Your task to perform on an android device: What's the latest tech news? Image 0: 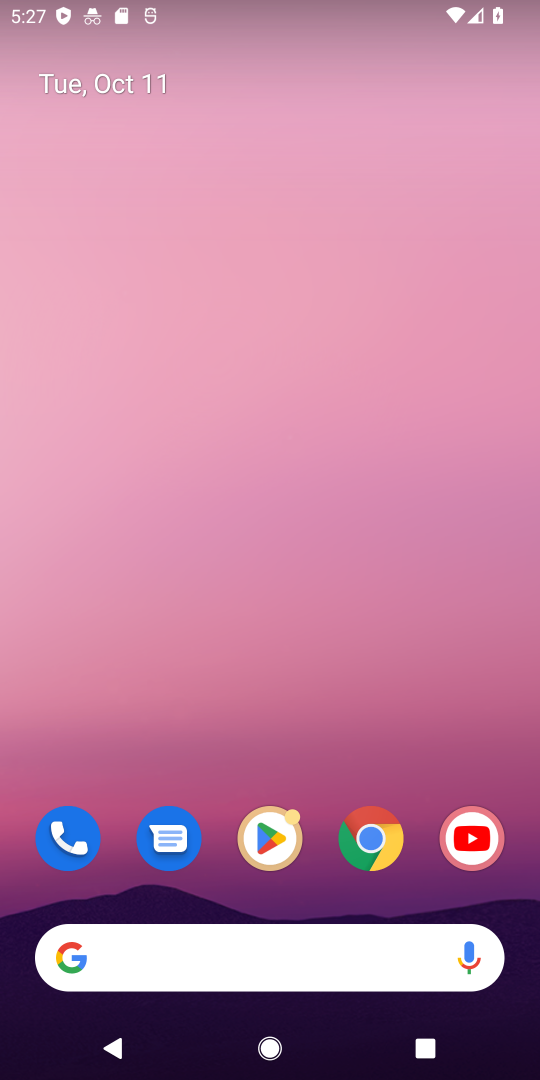
Step 0: click (372, 835)
Your task to perform on an android device: What's the latest tech news? Image 1: 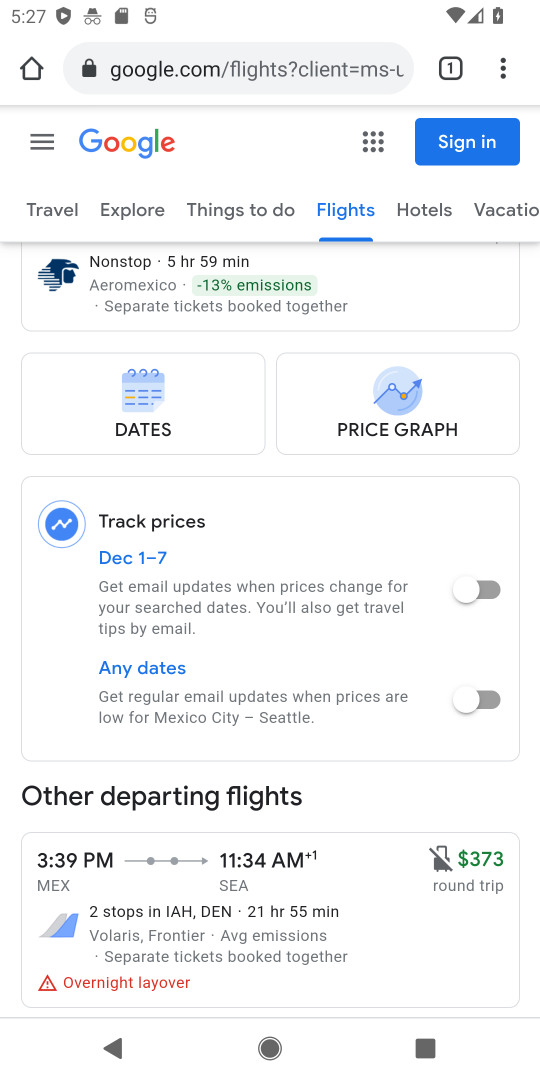
Step 1: click (331, 77)
Your task to perform on an android device: What's the latest tech news? Image 2: 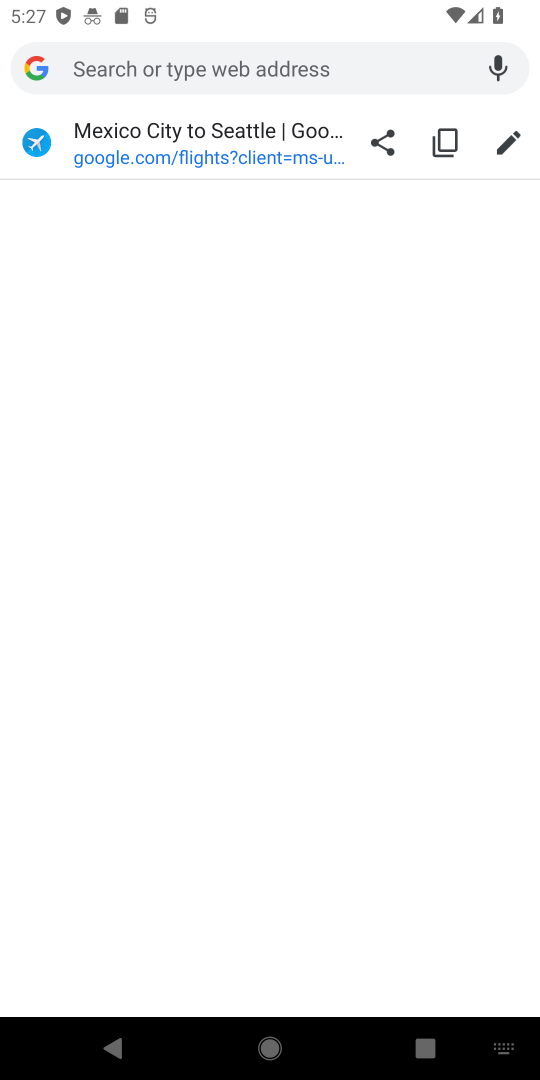
Step 2: type "tech news"
Your task to perform on an android device: What's the latest tech news? Image 3: 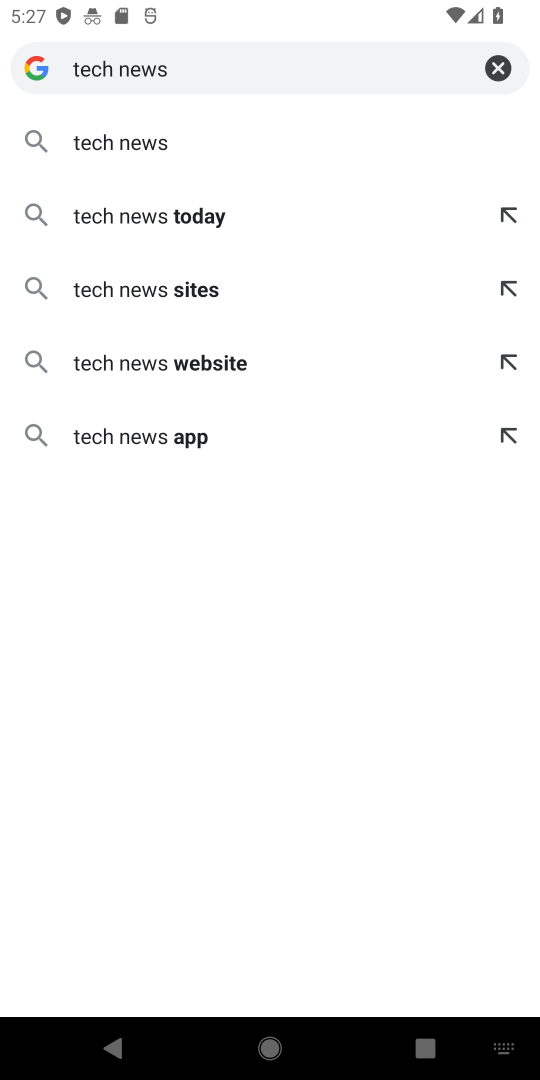
Step 3: click (90, 149)
Your task to perform on an android device: What's the latest tech news? Image 4: 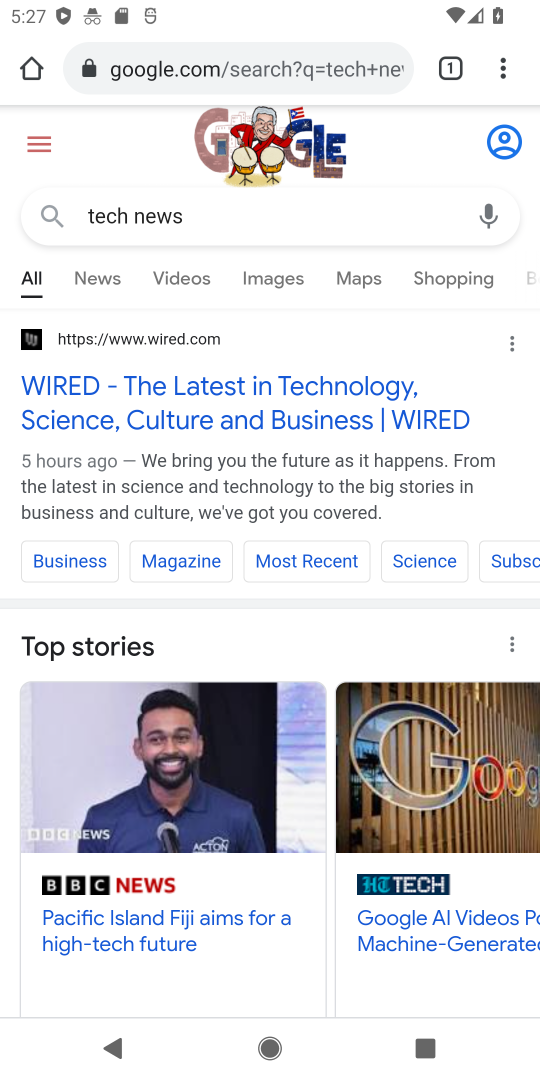
Step 4: click (92, 285)
Your task to perform on an android device: What's the latest tech news? Image 5: 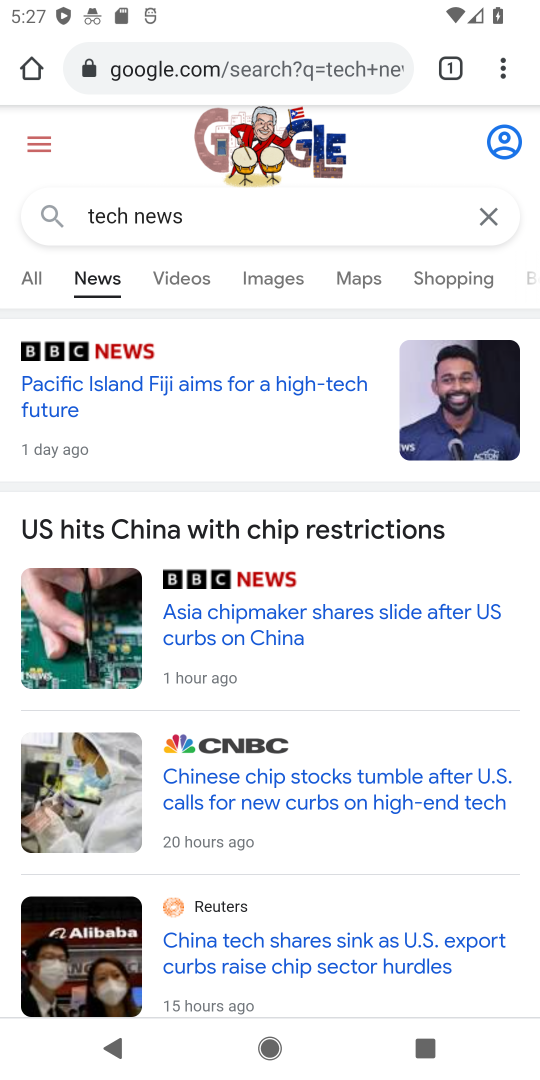
Step 5: task complete